Your task to perform on an android device: See recent photos Image 0: 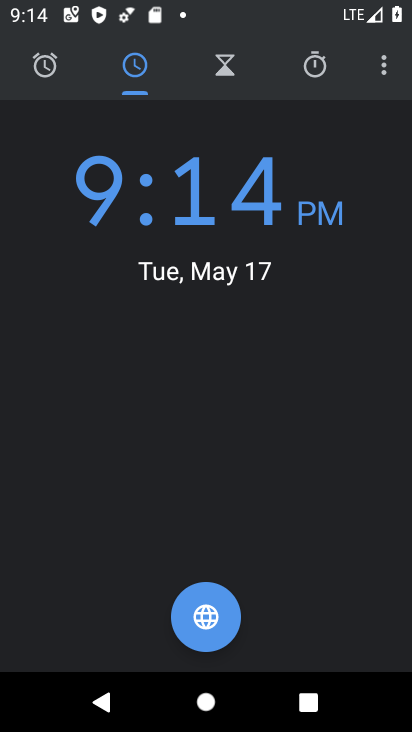
Step 0: press home button
Your task to perform on an android device: See recent photos Image 1: 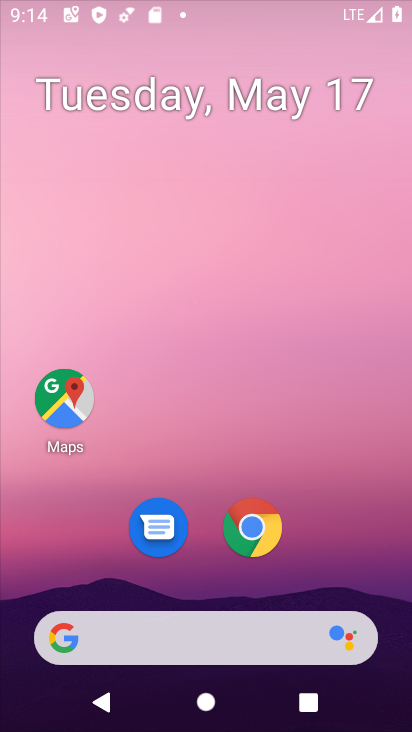
Step 1: drag from (215, 634) to (297, 261)
Your task to perform on an android device: See recent photos Image 2: 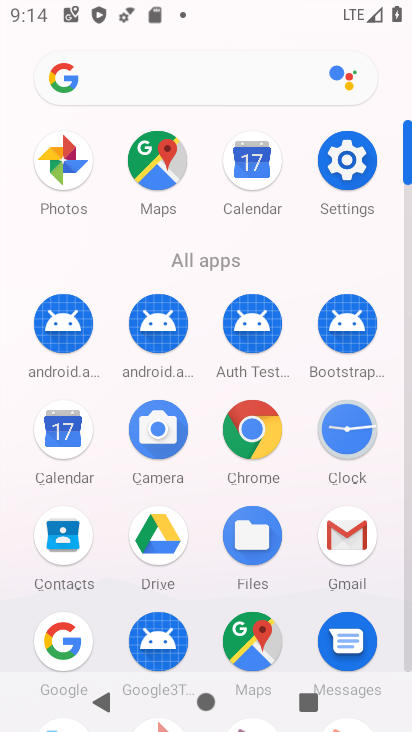
Step 2: click (66, 168)
Your task to perform on an android device: See recent photos Image 3: 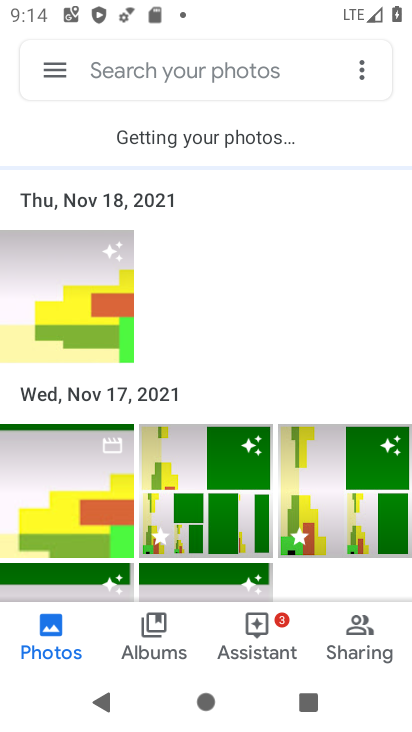
Step 3: click (204, 543)
Your task to perform on an android device: See recent photos Image 4: 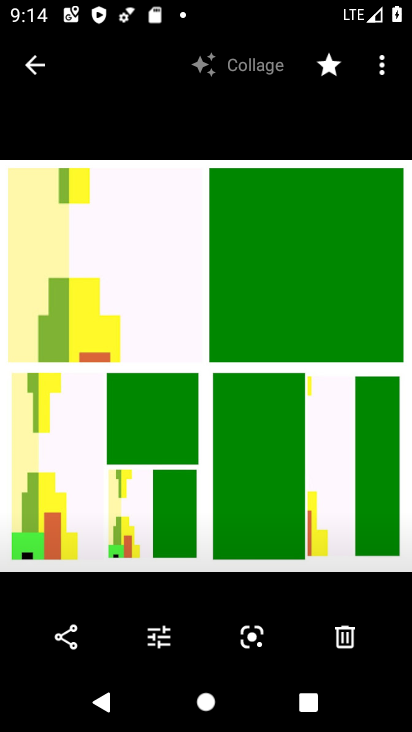
Step 4: click (39, 78)
Your task to perform on an android device: See recent photos Image 5: 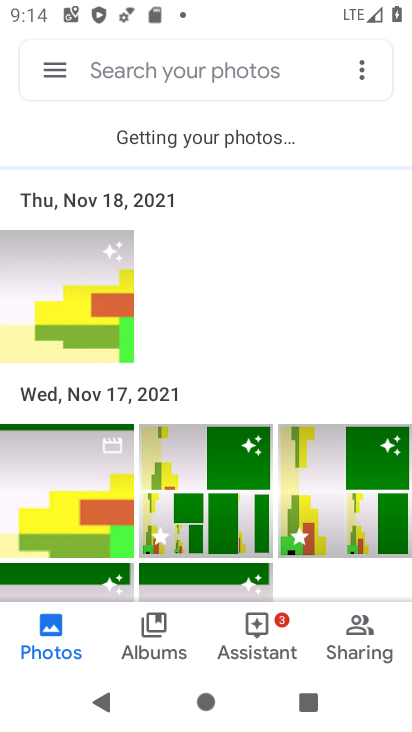
Step 5: click (150, 640)
Your task to perform on an android device: See recent photos Image 6: 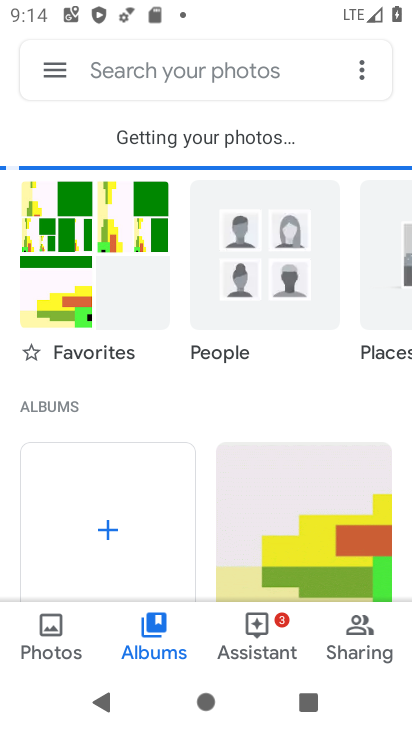
Step 6: task complete